Your task to perform on an android device: turn on data saver in the chrome app Image 0: 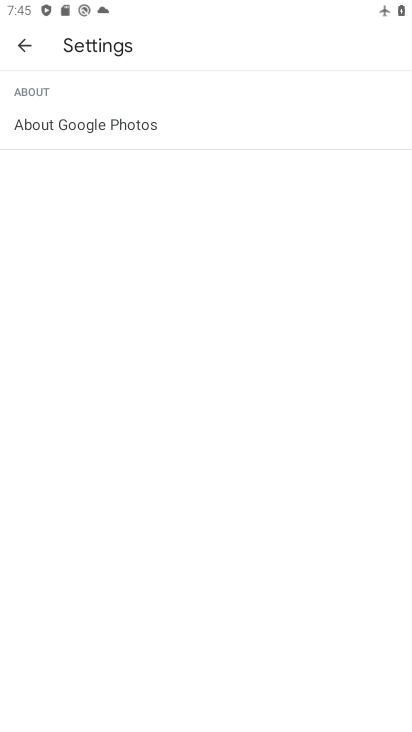
Step 0: press home button
Your task to perform on an android device: turn on data saver in the chrome app Image 1: 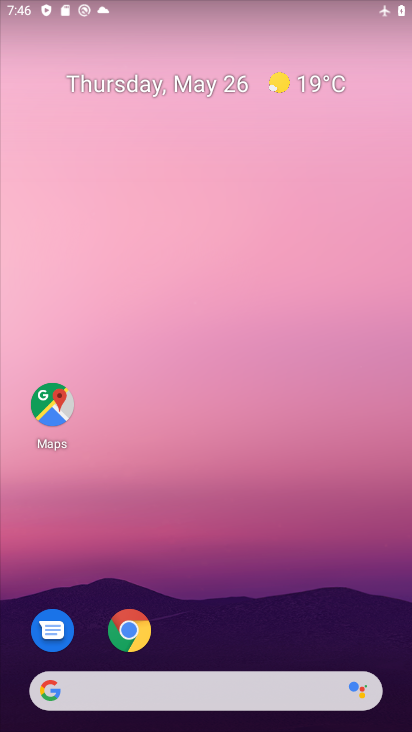
Step 1: click (128, 629)
Your task to perform on an android device: turn on data saver in the chrome app Image 2: 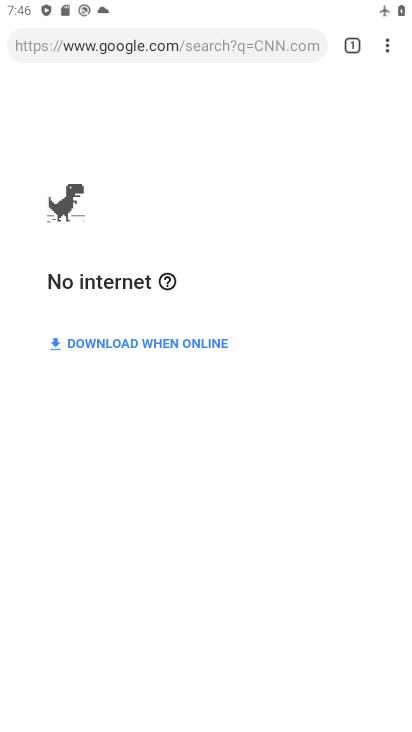
Step 2: click (388, 44)
Your task to perform on an android device: turn on data saver in the chrome app Image 3: 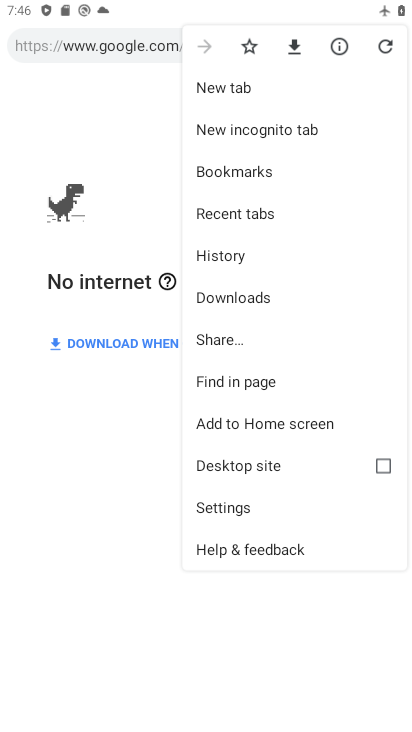
Step 3: click (238, 504)
Your task to perform on an android device: turn on data saver in the chrome app Image 4: 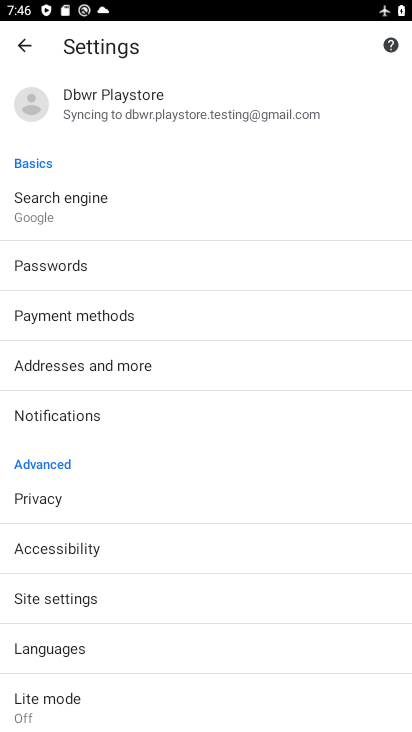
Step 4: drag from (131, 471) to (162, 395)
Your task to perform on an android device: turn on data saver in the chrome app Image 5: 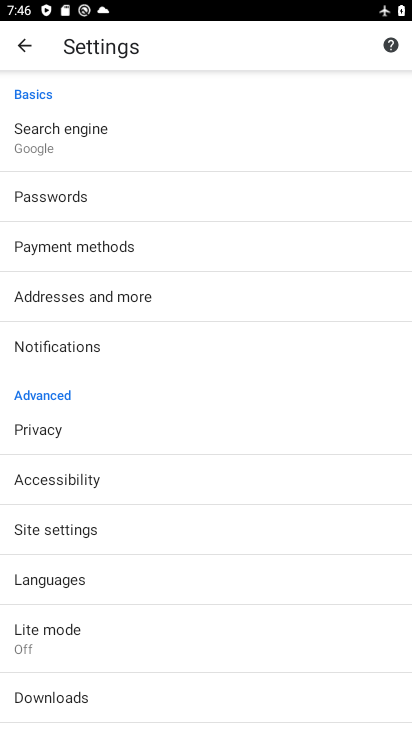
Step 5: click (75, 631)
Your task to perform on an android device: turn on data saver in the chrome app Image 6: 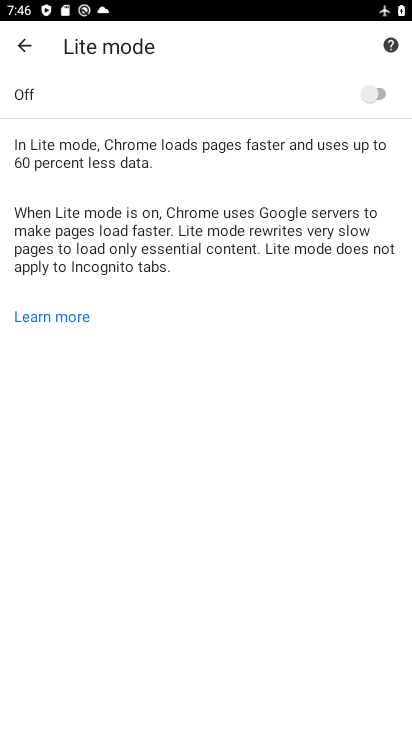
Step 6: click (369, 92)
Your task to perform on an android device: turn on data saver in the chrome app Image 7: 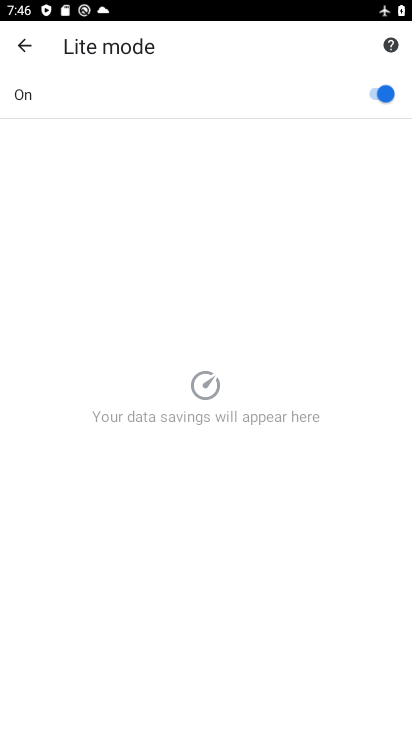
Step 7: task complete